Your task to perform on an android device: turn on improve location accuracy Image 0: 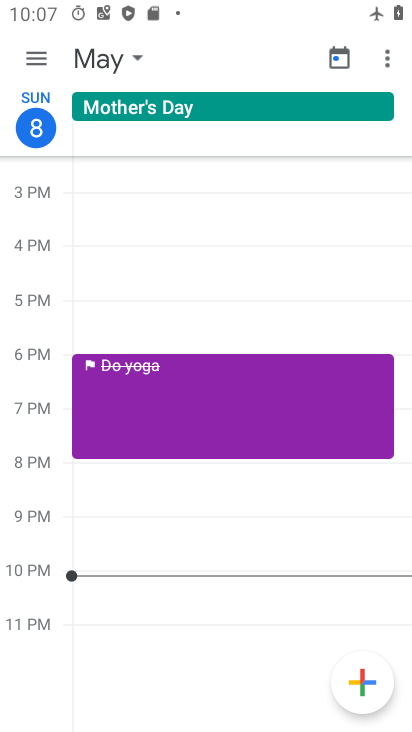
Step 0: press back button
Your task to perform on an android device: turn on improve location accuracy Image 1: 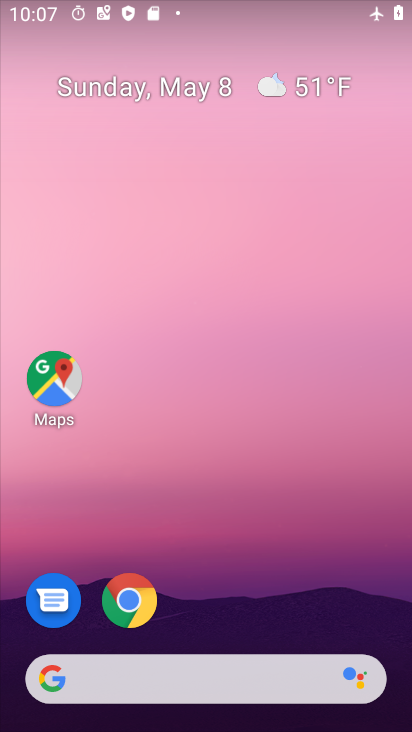
Step 1: drag from (263, 597) to (222, 40)
Your task to perform on an android device: turn on improve location accuracy Image 2: 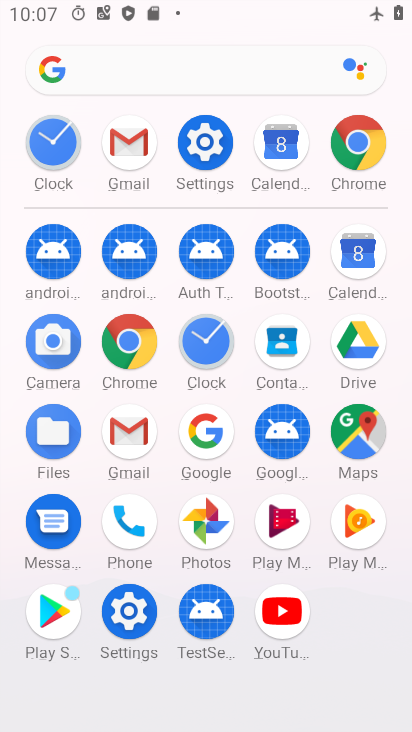
Step 2: click (128, 607)
Your task to perform on an android device: turn on improve location accuracy Image 3: 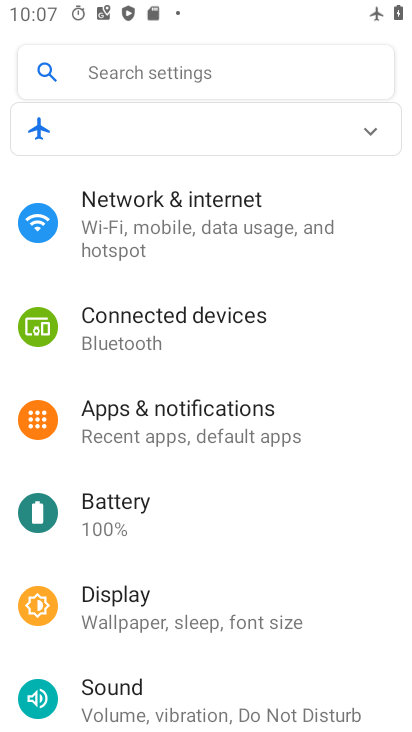
Step 3: drag from (322, 619) to (344, 141)
Your task to perform on an android device: turn on improve location accuracy Image 4: 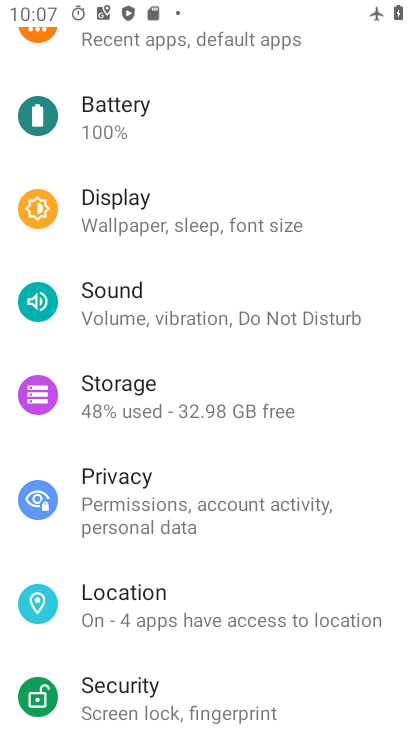
Step 4: click (206, 601)
Your task to perform on an android device: turn on improve location accuracy Image 5: 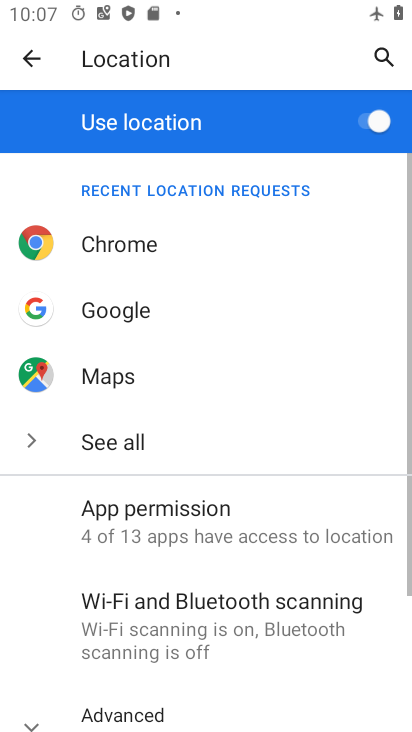
Step 5: drag from (222, 657) to (302, 226)
Your task to perform on an android device: turn on improve location accuracy Image 6: 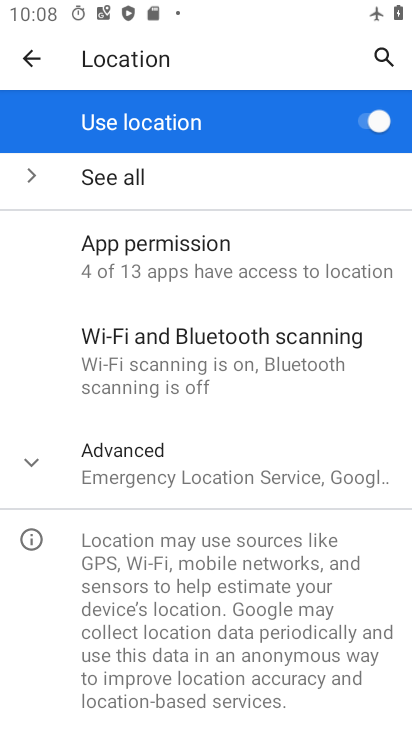
Step 6: click (44, 459)
Your task to perform on an android device: turn on improve location accuracy Image 7: 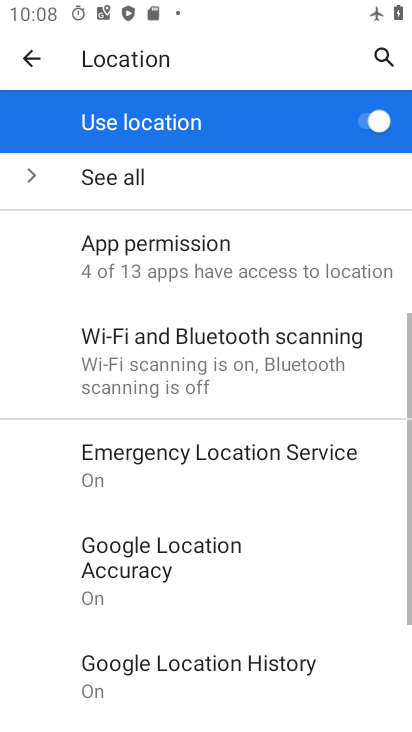
Step 7: drag from (287, 642) to (312, 200)
Your task to perform on an android device: turn on improve location accuracy Image 8: 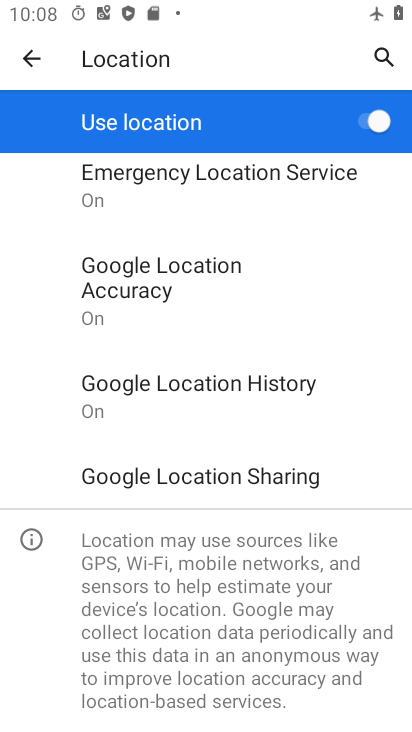
Step 8: click (193, 286)
Your task to perform on an android device: turn on improve location accuracy Image 9: 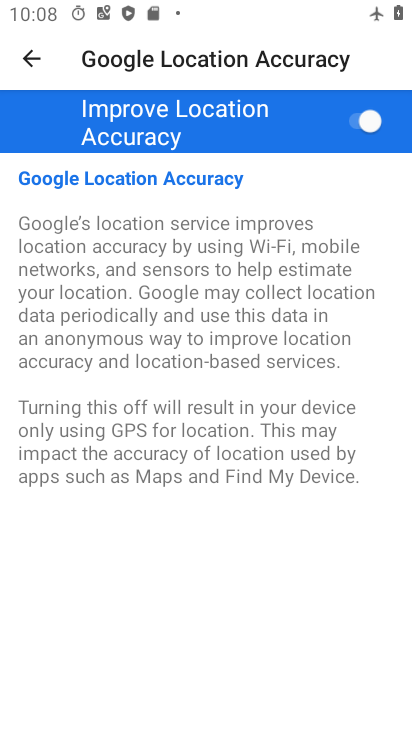
Step 9: task complete